Your task to perform on an android device: Open the calendar app, open the side menu, and click the "Day" option Image 0: 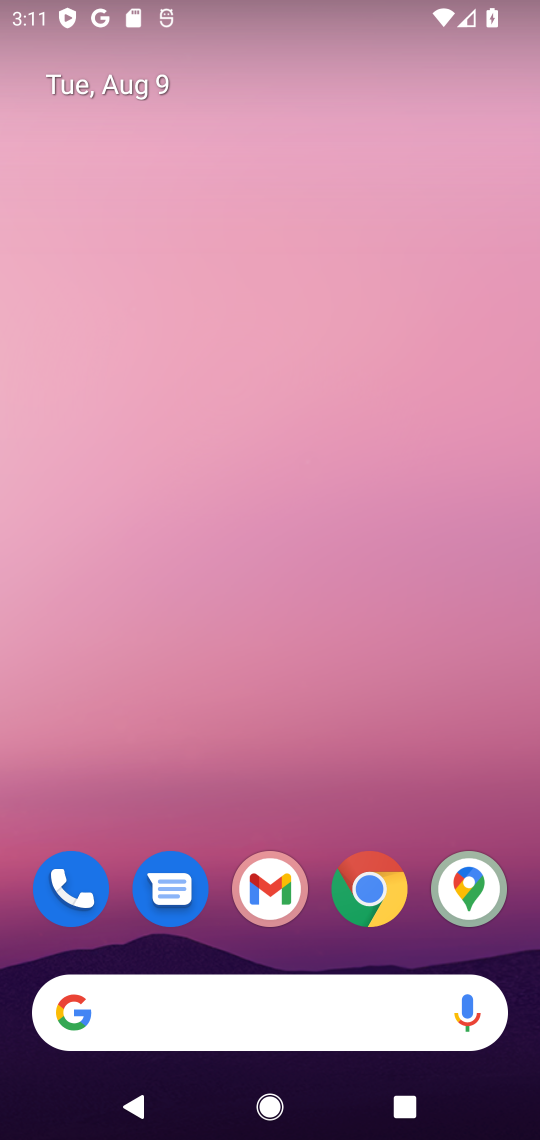
Step 0: drag from (366, 795) to (404, 85)
Your task to perform on an android device: Open the calendar app, open the side menu, and click the "Day" option Image 1: 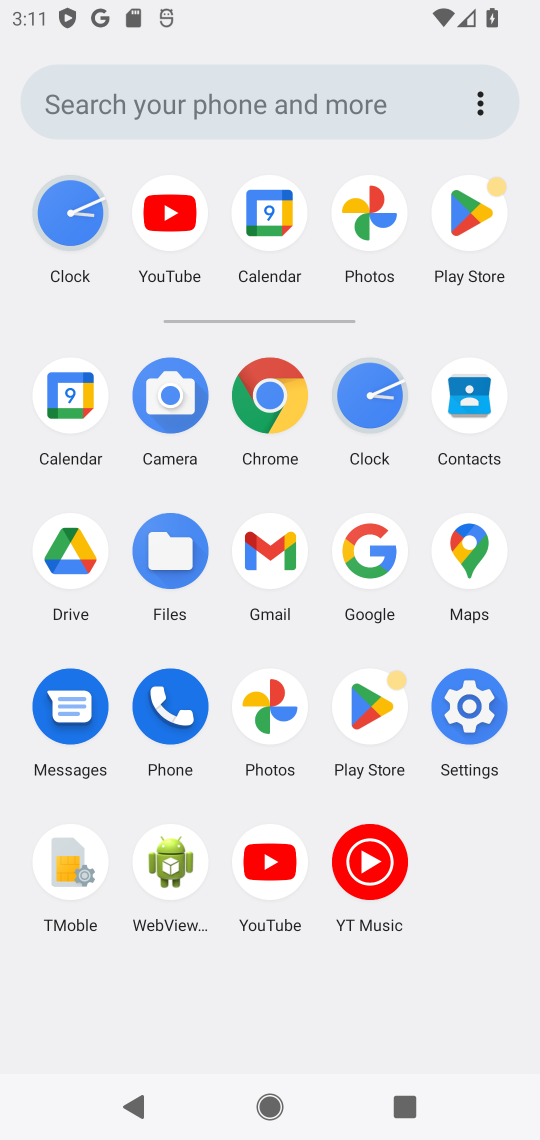
Step 1: click (281, 206)
Your task to perform on an android device: Open the calendar app, open the side menu, and click the "Day" option Image 2: 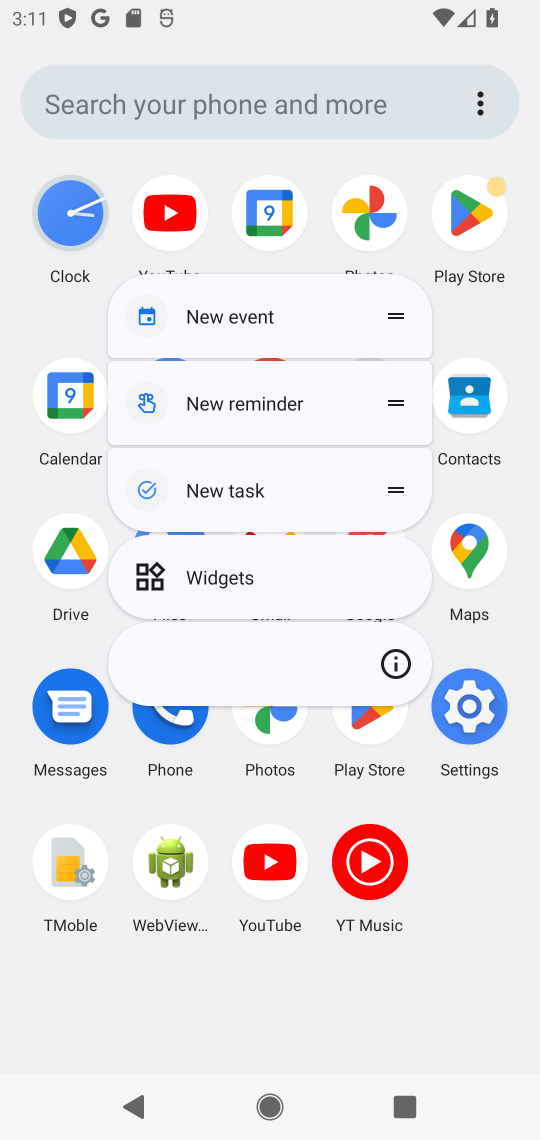
Step 2: click (264, 192)
Your task to perform on an android device: Open the calendar app, open the side menu, and click the "Day" option Image 3: 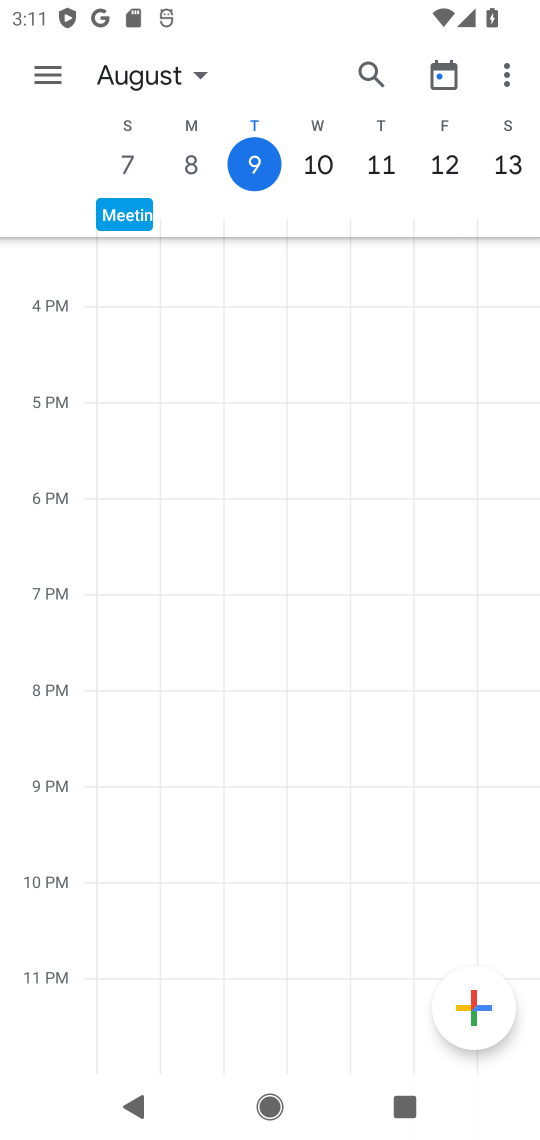
Step 3: click (54, 69)
Your task to perform on an android device: Open the calendar app, open the side menu, and click the "Day" option Image 4: 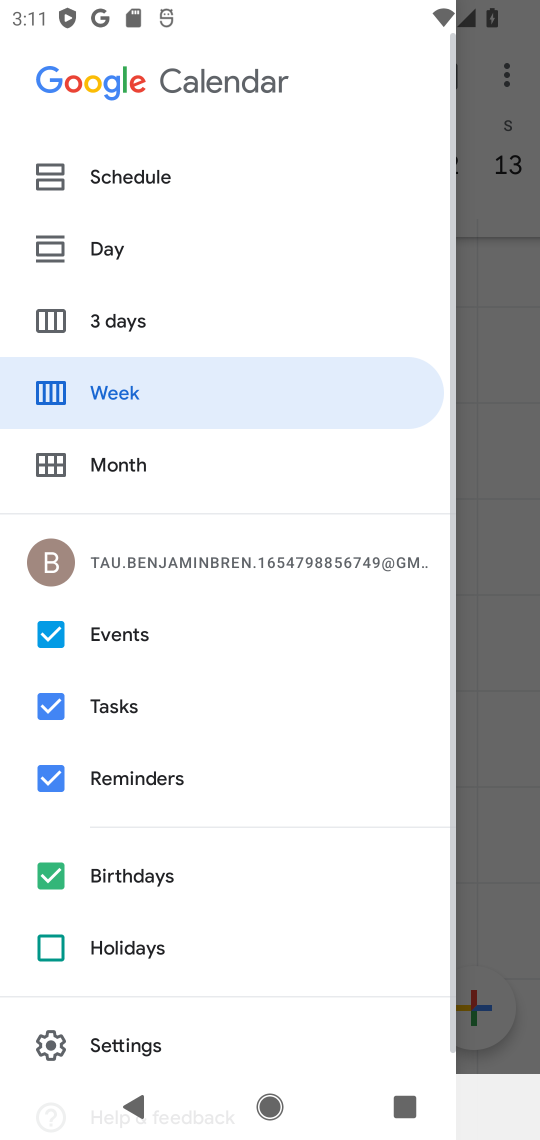
Step 4: click (46, 241)
Your task to perform on an android device: Open the calendar app, open the side menu, and click the "Day" option Image 5: 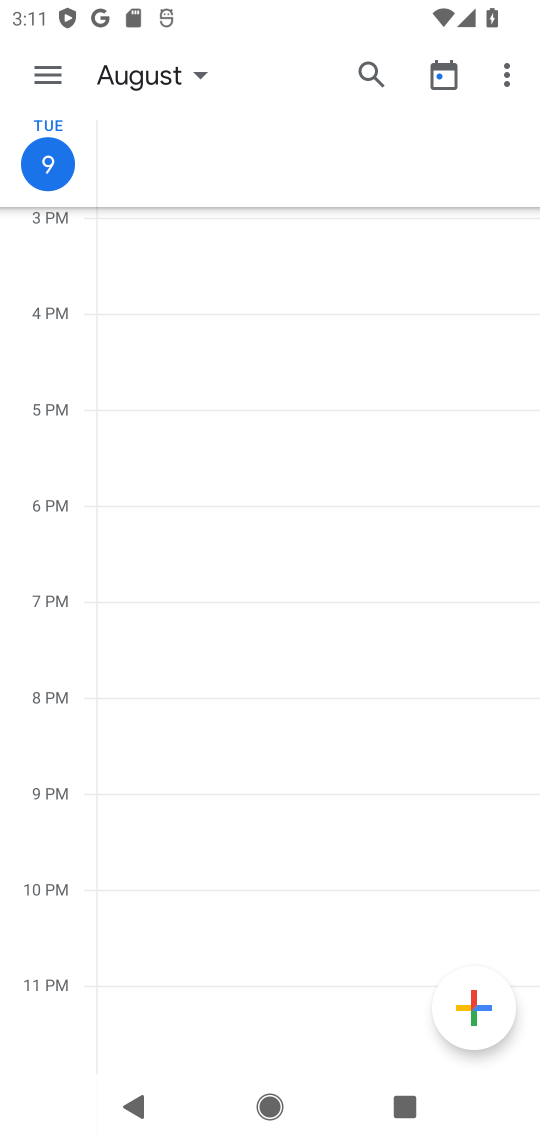
Step 5: task complete